Your task to perform on an android device: Open Google Chrome and open the bookmarks view Image 0: 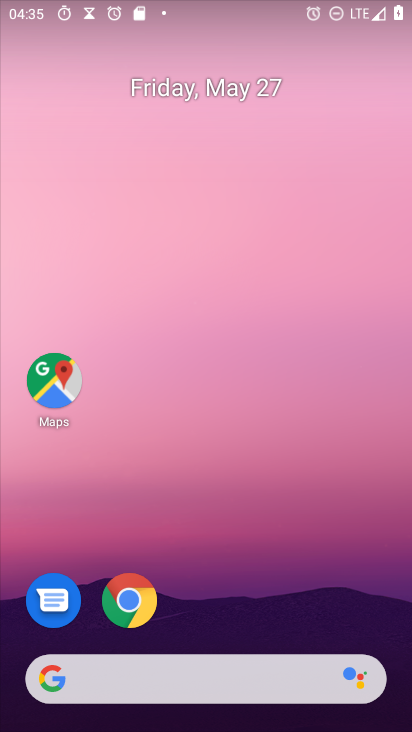
Step 0: click (130, 606)
Your task to perform on an android device: Open Google Chrome and open the bookmarks view Image 1: 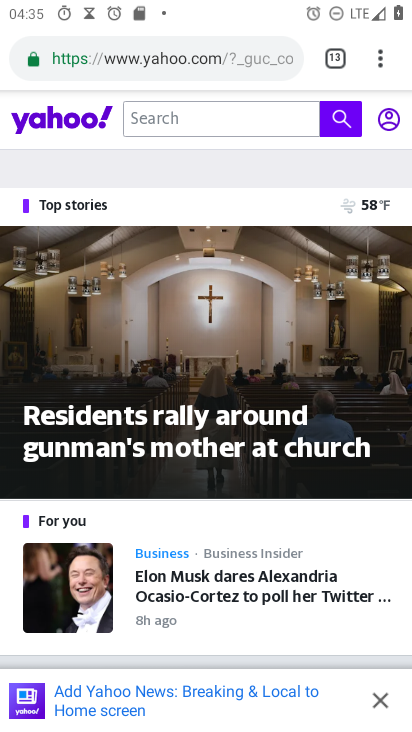
Step 1: click (381, 62)
Your task to perform on an android device: Open Google Chrome and open the bookmarks view Image 2: 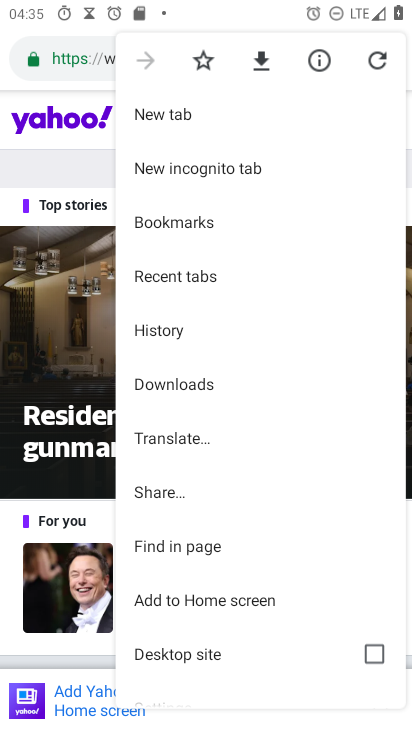
Step 2: click (183, 221)
Your task to perform on an android device: Open Google Chrome and open the bookmarks view Image 3: 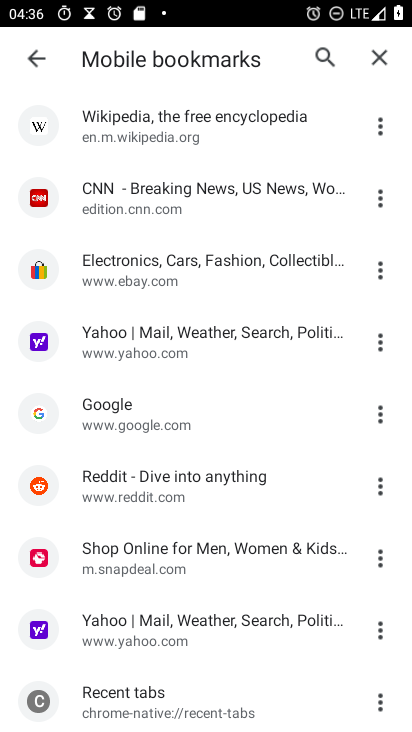
Step 3: task complete